Your task to perform on an android device: Open Yahoo.com Image 0: 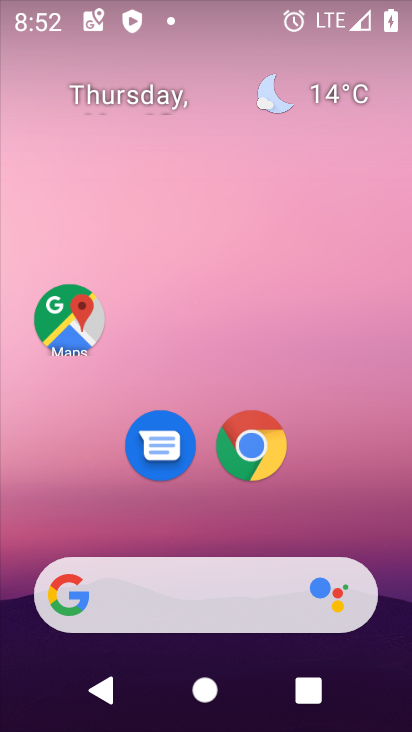
Step 0: click (242, 446)
Your task to perform on an android device: Open Yahoo.com Image 1: 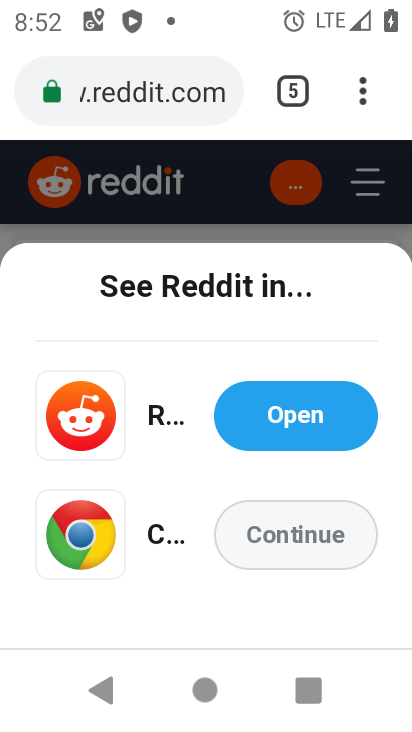
Step 1: click (363, 99)
Your task to perform on an android device: Open Yahoo.com Image 2: 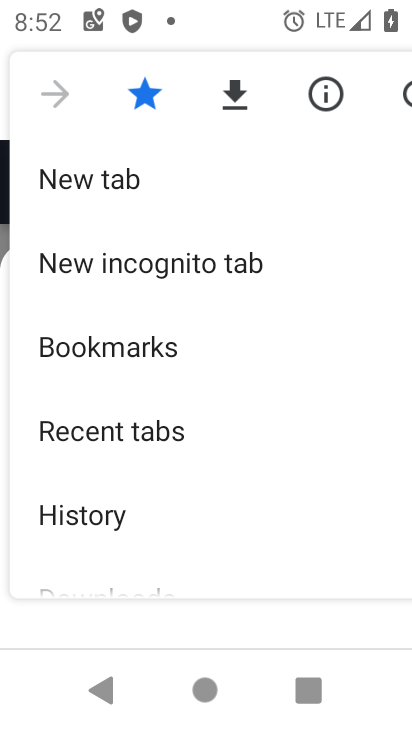
Step 2: click (88, 175)
Your task to perform on an android device: Open Yahoo.com Image 3: 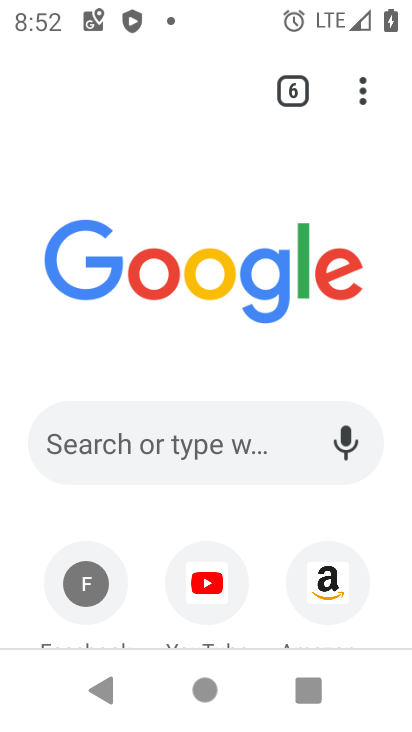
Step 3: click (172, 444)
Your task to perform on an android device: Open Yahoo.com Image 4: 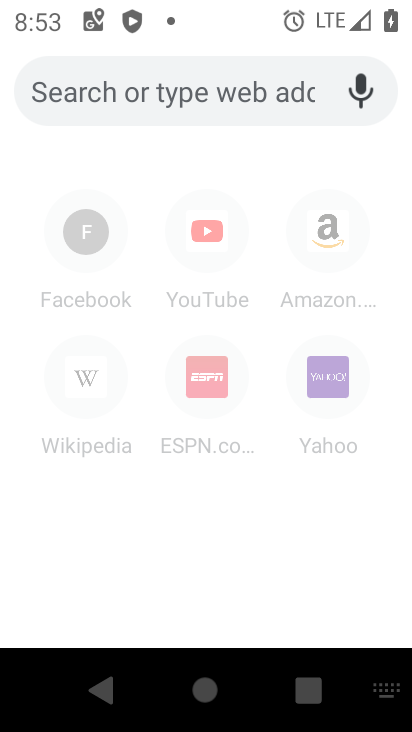
Step 4: type "Yahoo.com"
Your task to perform on an android device: Open Yahoo.com Image 5: 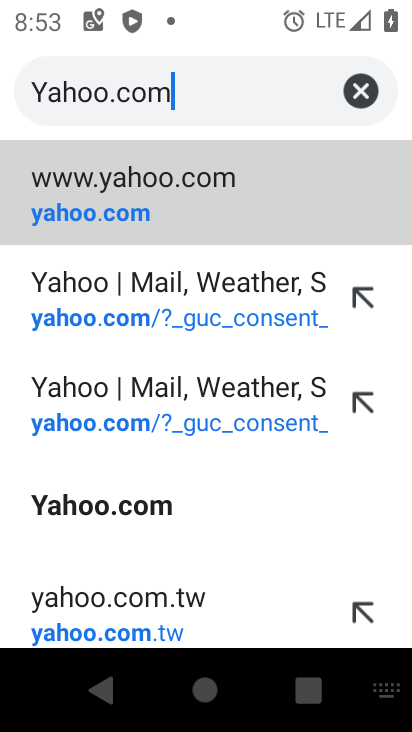
Step 5: click (118, 188)
Your task to perform on an android device: Open Yahoo.com Image 6: 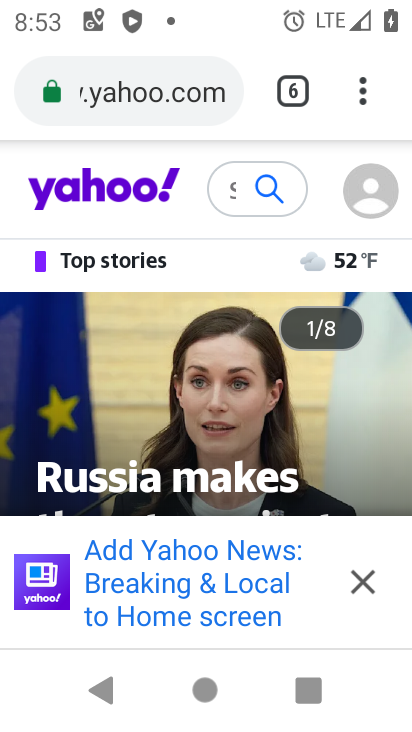
Step 6: task complete